Your task to perform on an android device: turn on translation in the chrome app Image 0: 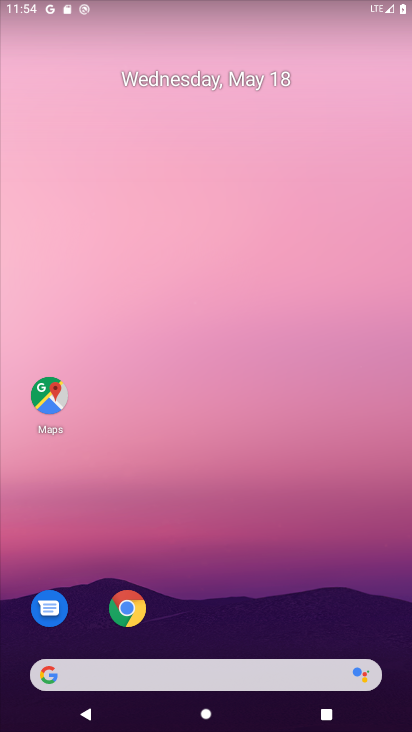
Step 0: click (138, 603)
Your task to perform on an android device: turn on translation in the chrome app Image 1: 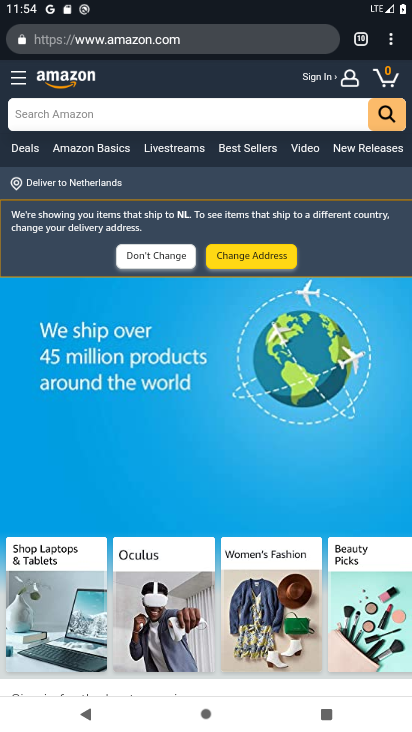
Step 1: click (391, 42)
Your task to perform on an android device: turn on translation in the chrome app Image 2: 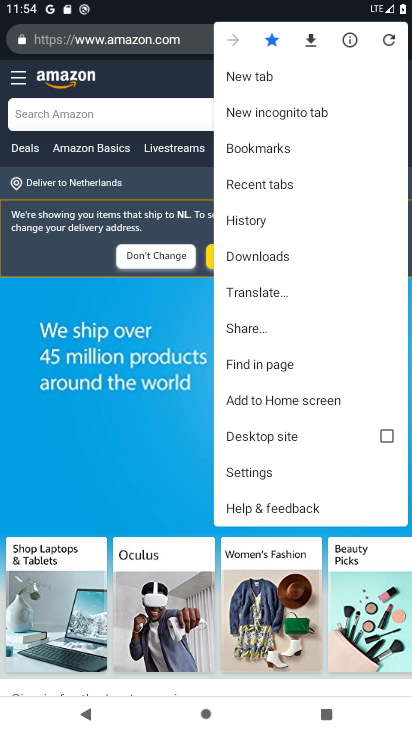
Step 2: click (257, 475)
Your task to perform on an android device: turn on translation in the chrome app Image 3: 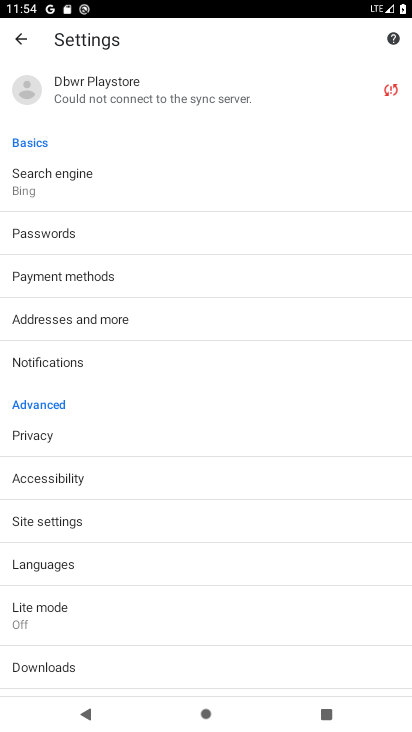
Step 3: click (69, 564)
Your task to perform on an android device: turn on translation in the chrome app Image 4: 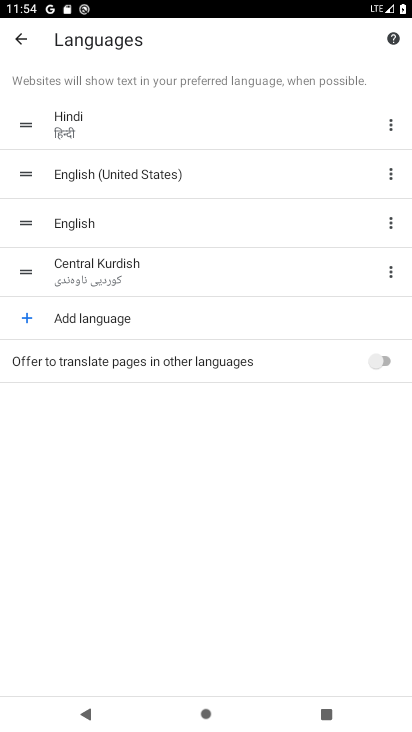
Step 4: click (383, 360)
Your task to perform on an android device: turn on translation in the chrome app Image 5: 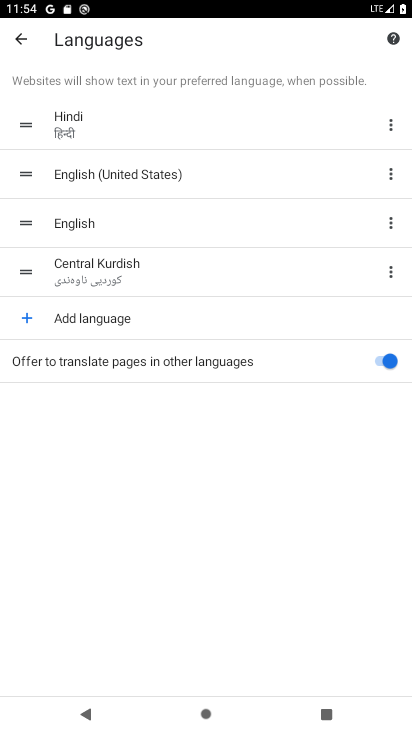
Step 5: task complete